Your task to perform on an android device: Search for usb-a to usb-b on walmart, select the first entry, and add it to the cart. Image 0: 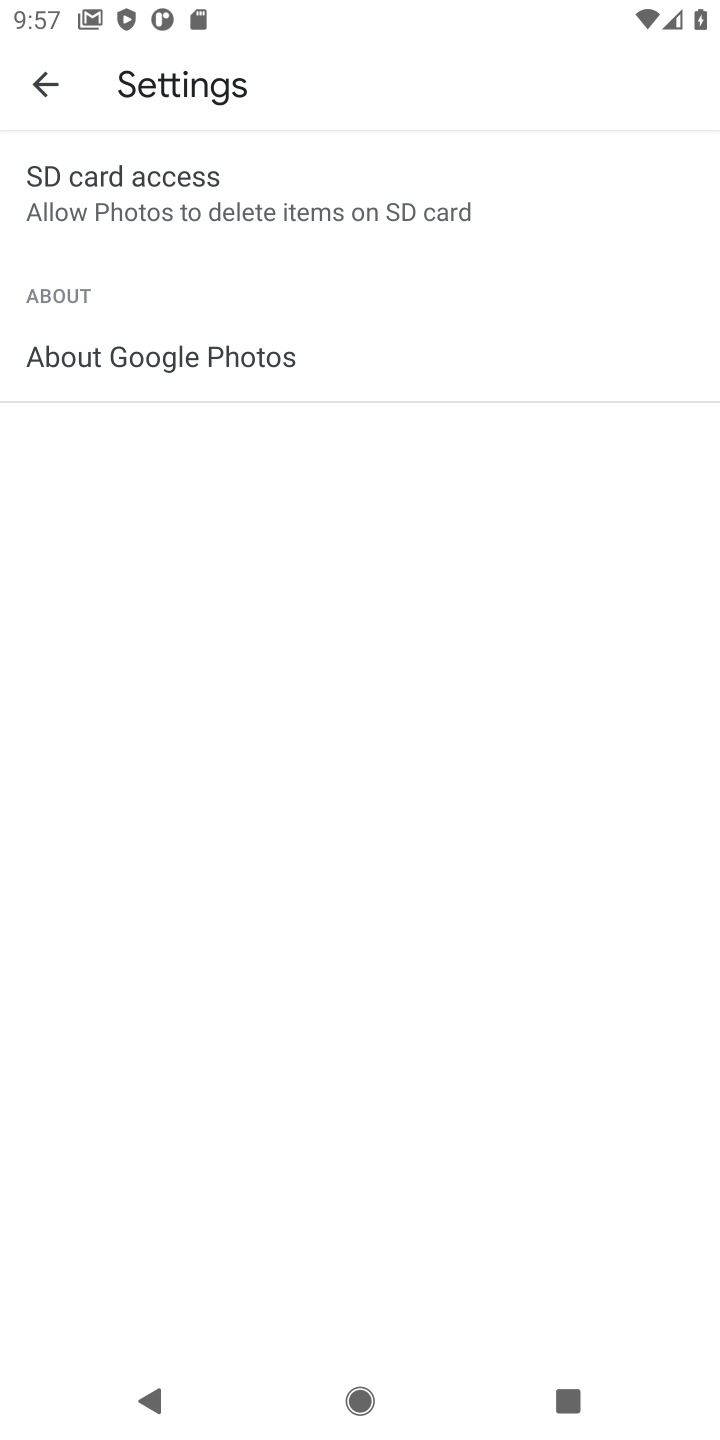
Step 0: press home button
Your task to perform on an android device: Search for usb-a to usb-b on walmart, select the first entry, and add it to the cart. Image 1: 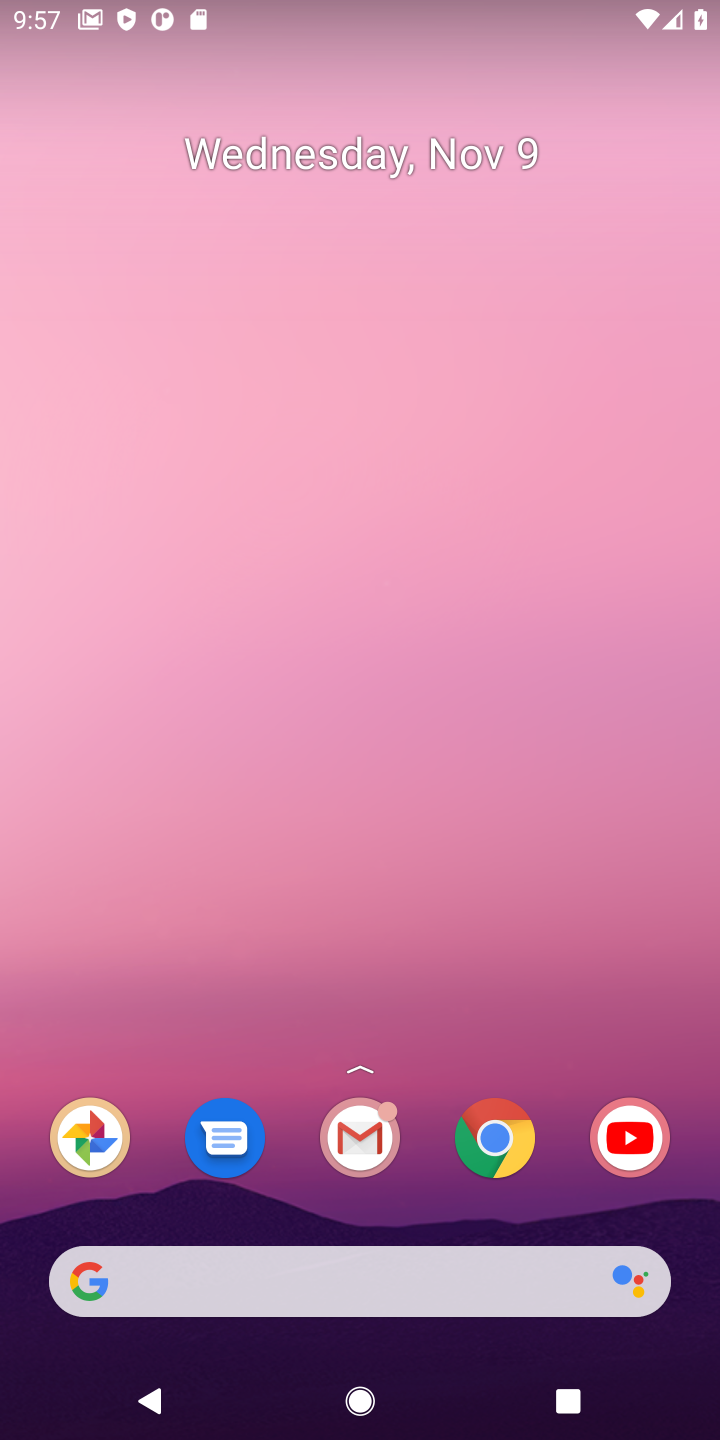
Step 1: drag from (431, 1206) to (489, 95)
Your task to perform on an android device: Search for usb-a to usb-b on walmart, select the first entry, and add it to the cart. Image 2: 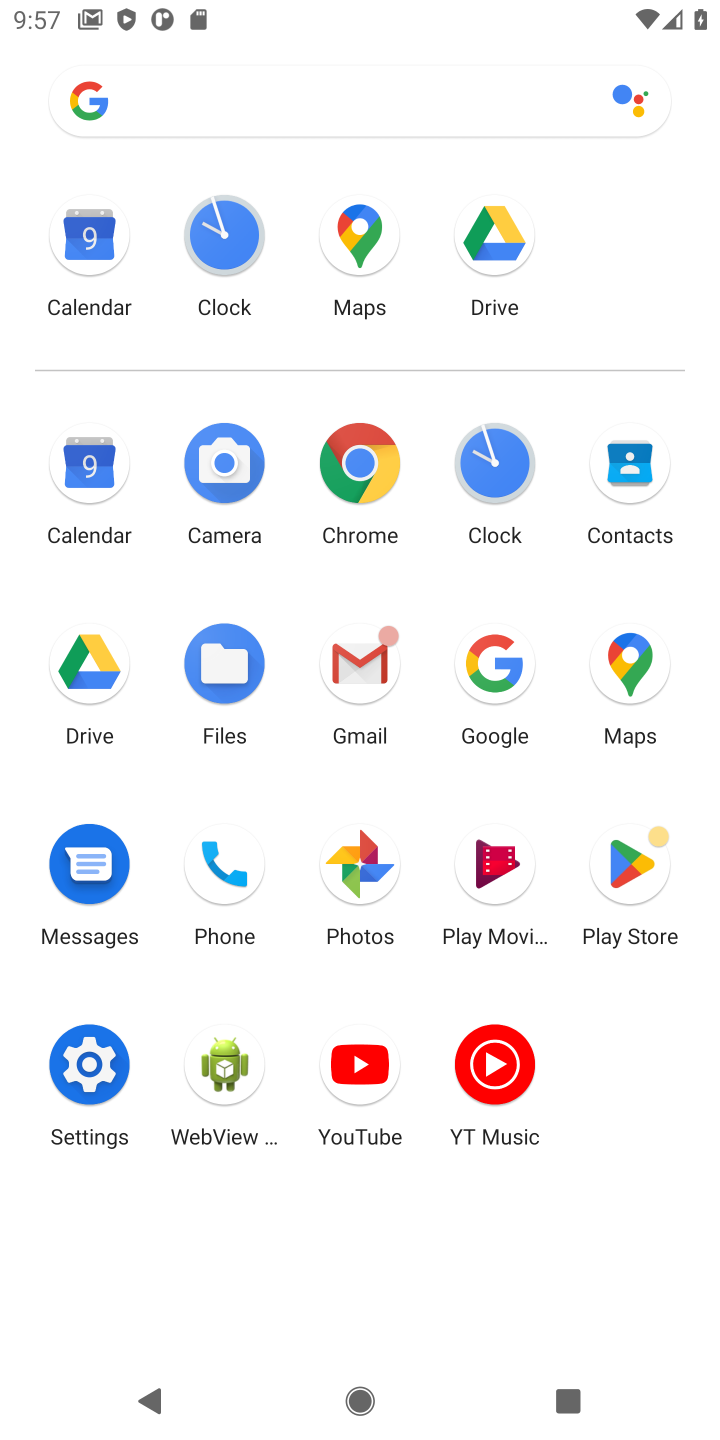
Step 2: click (365, 464)
Your task to perform on an android device: Search for usb-a to usb-b on walmart, select the first entry, and add it to the cart. Image 3: 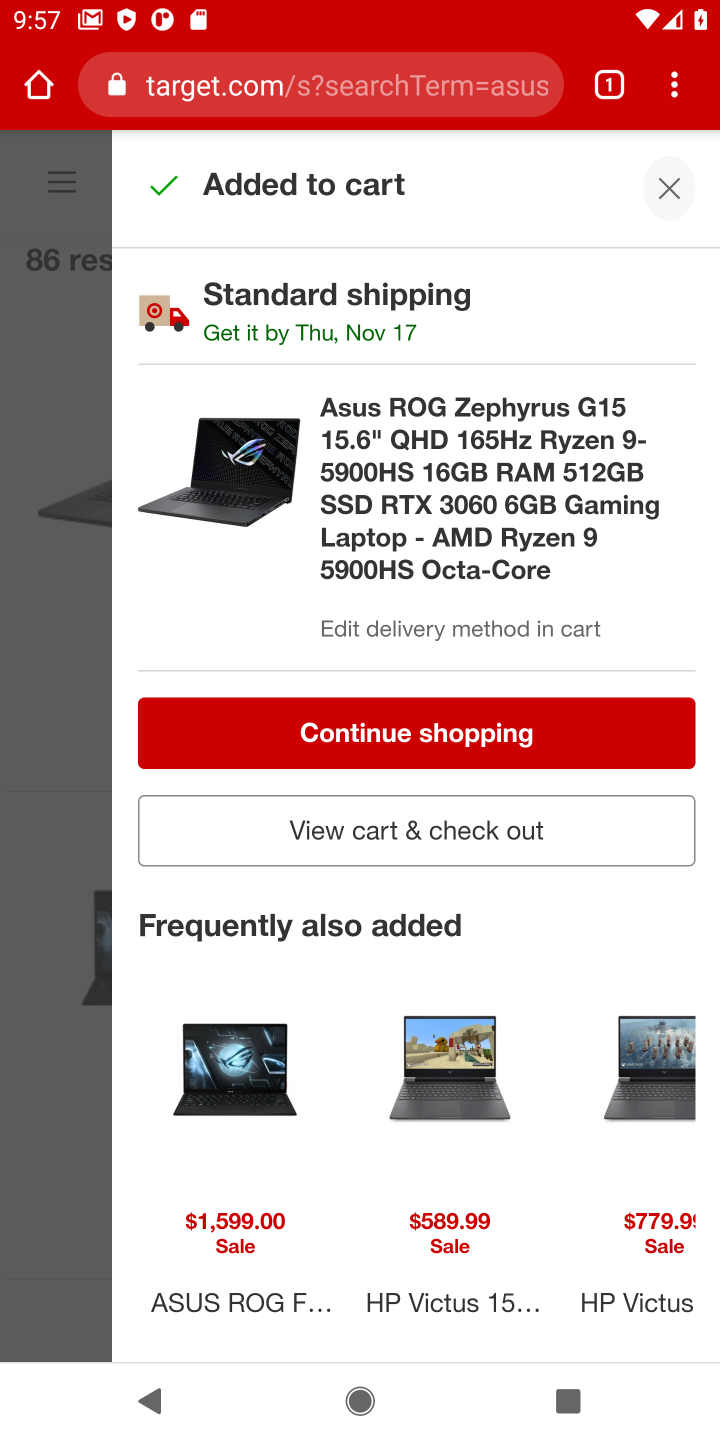
Step 3: click (413, 96)
Your task to perform on an android device: Search for usb-a to usb-b on walmart, select the first entry, and add it to the cart. Image 4: 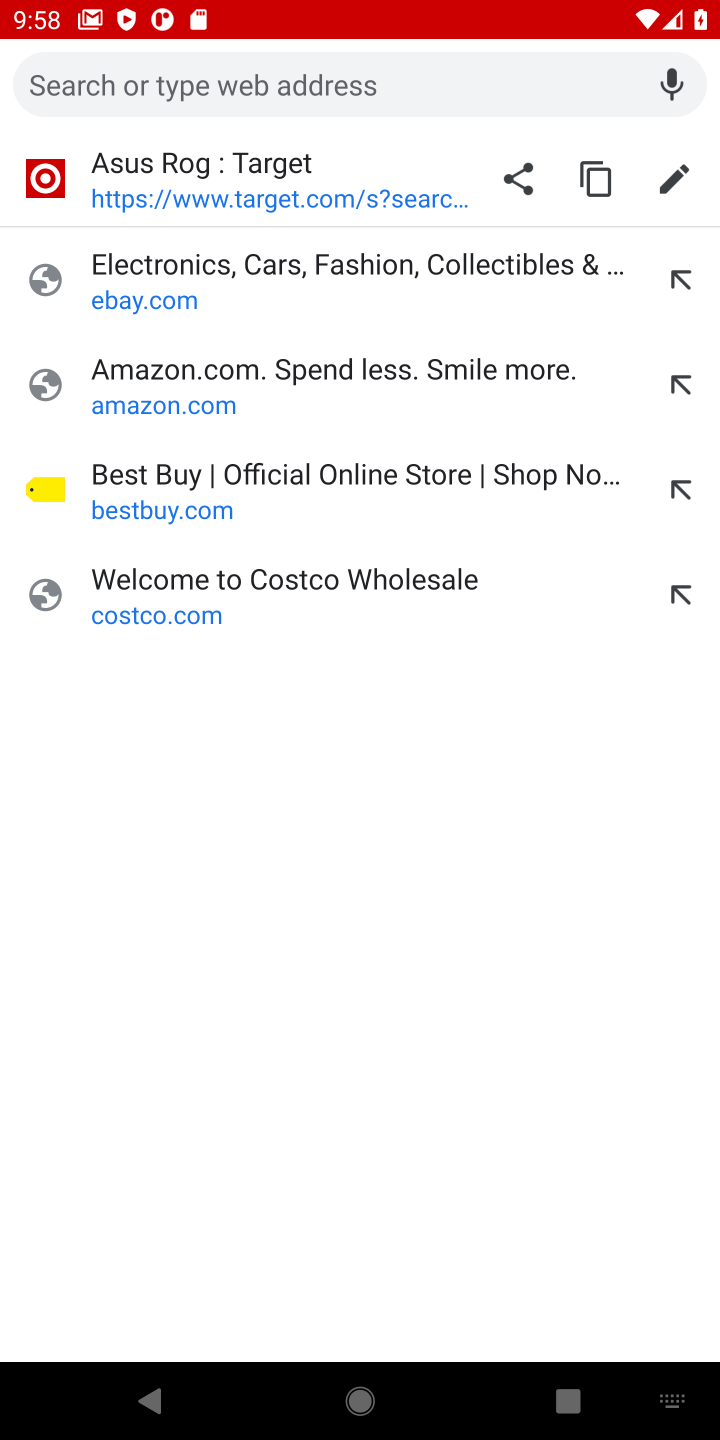
Step 4: type "walmart.com"
Your task to perform on an android device: Search for usb-a to usb-b on walmart, select the first entry, and add it to the cart. Image 5: 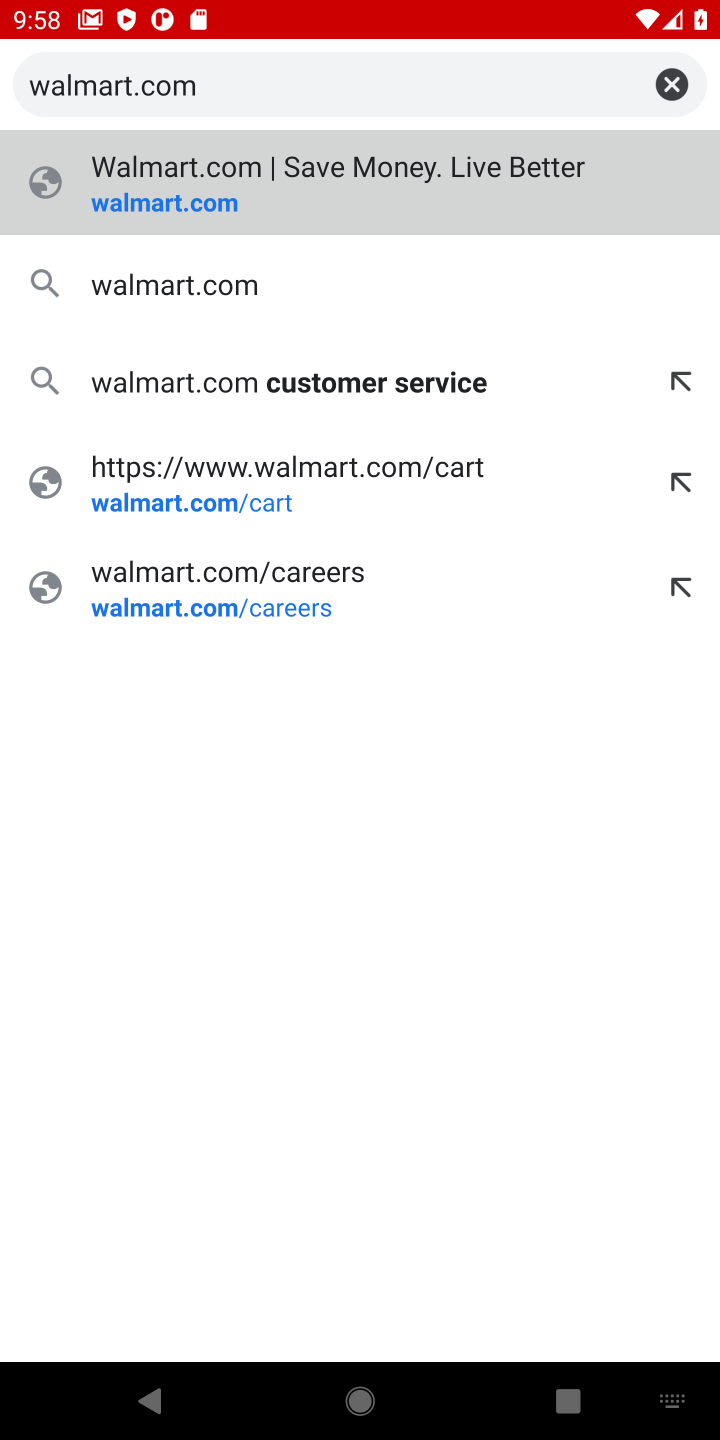
Step 5: press enter
Your task to perform on an android device: Search for usb-a to usb-b on walmart, select the first entry, and add it to the cart. Image 6: 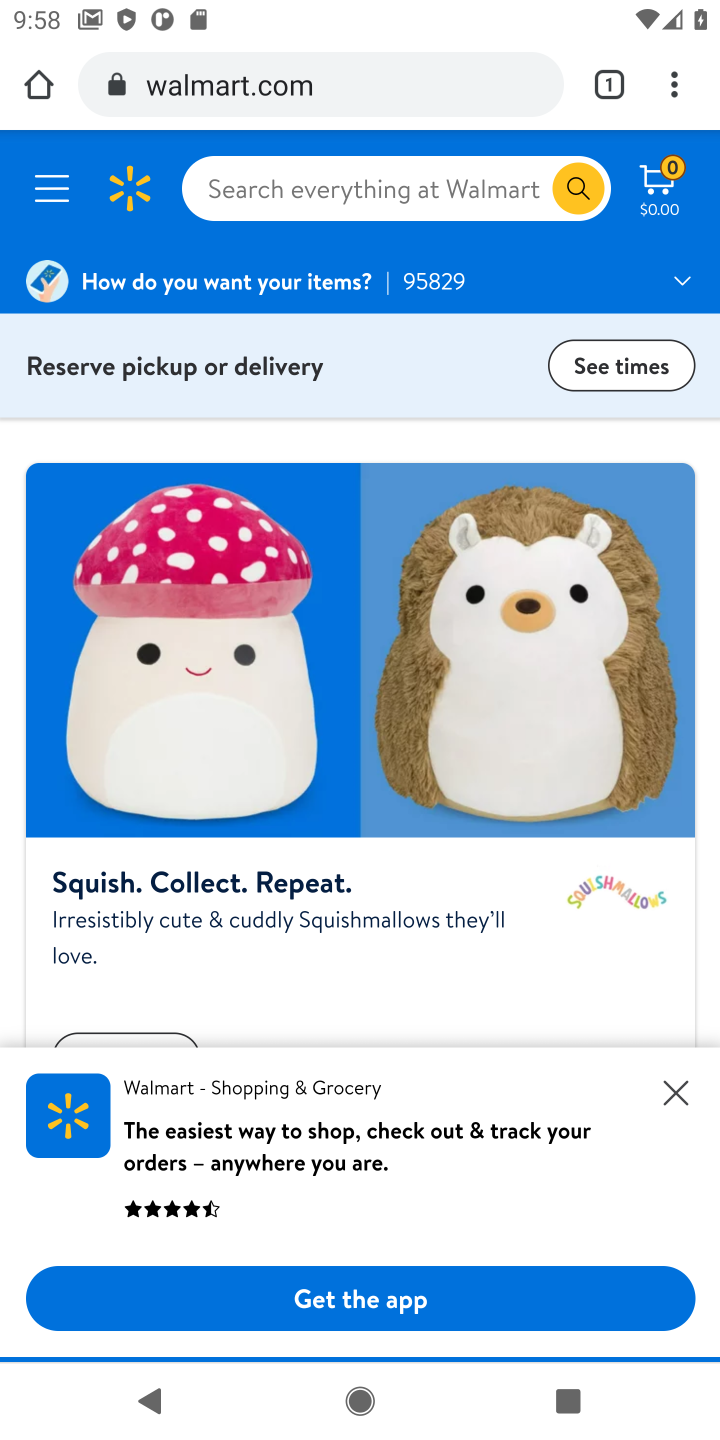
Step 6: click (408, 187)
Your task to perform on an android device: Search for usb-a to usb-b on walmart, select the first entry, and add it to the cart. Image 7: 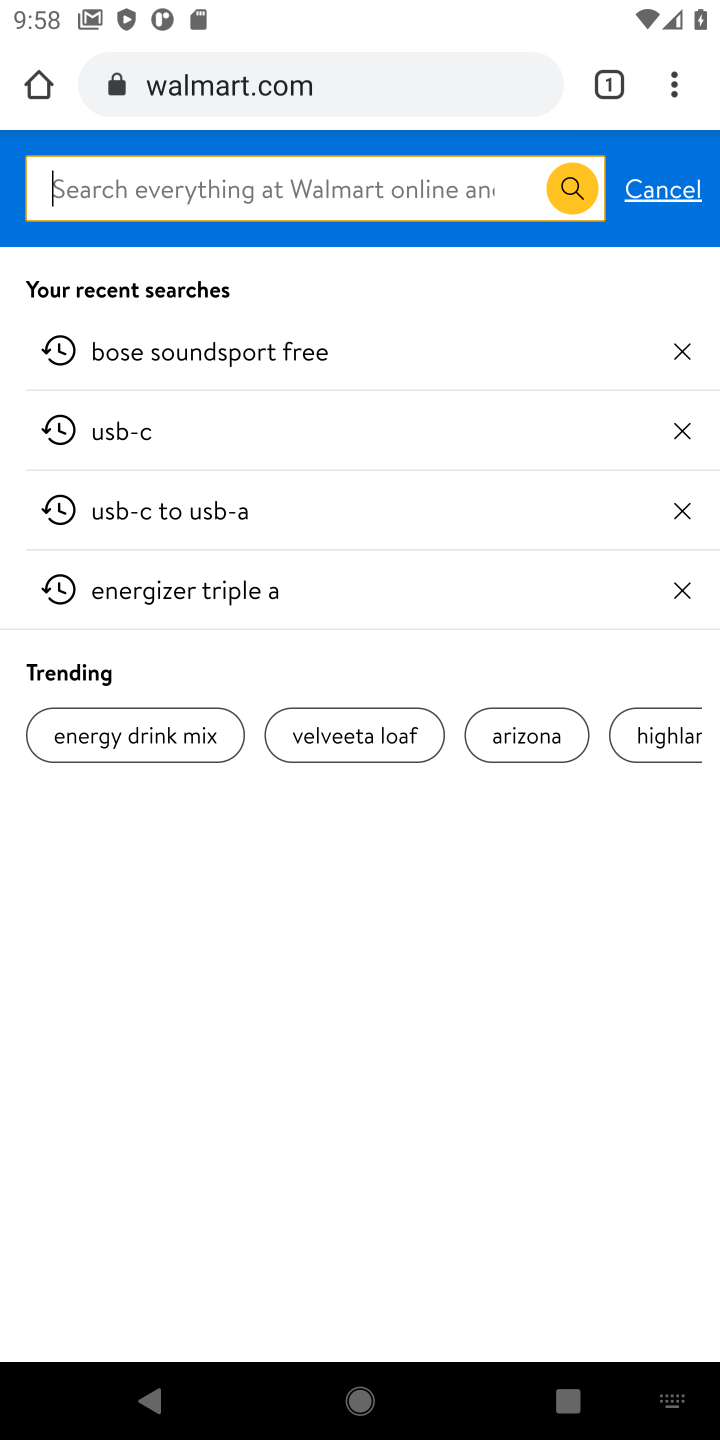
Step 7: type "usb-a to usb-b"
Your task to perform on an android device: Search for usb-a to usb-b on walmart, select the first entry, and add it to the cart. Image 8: 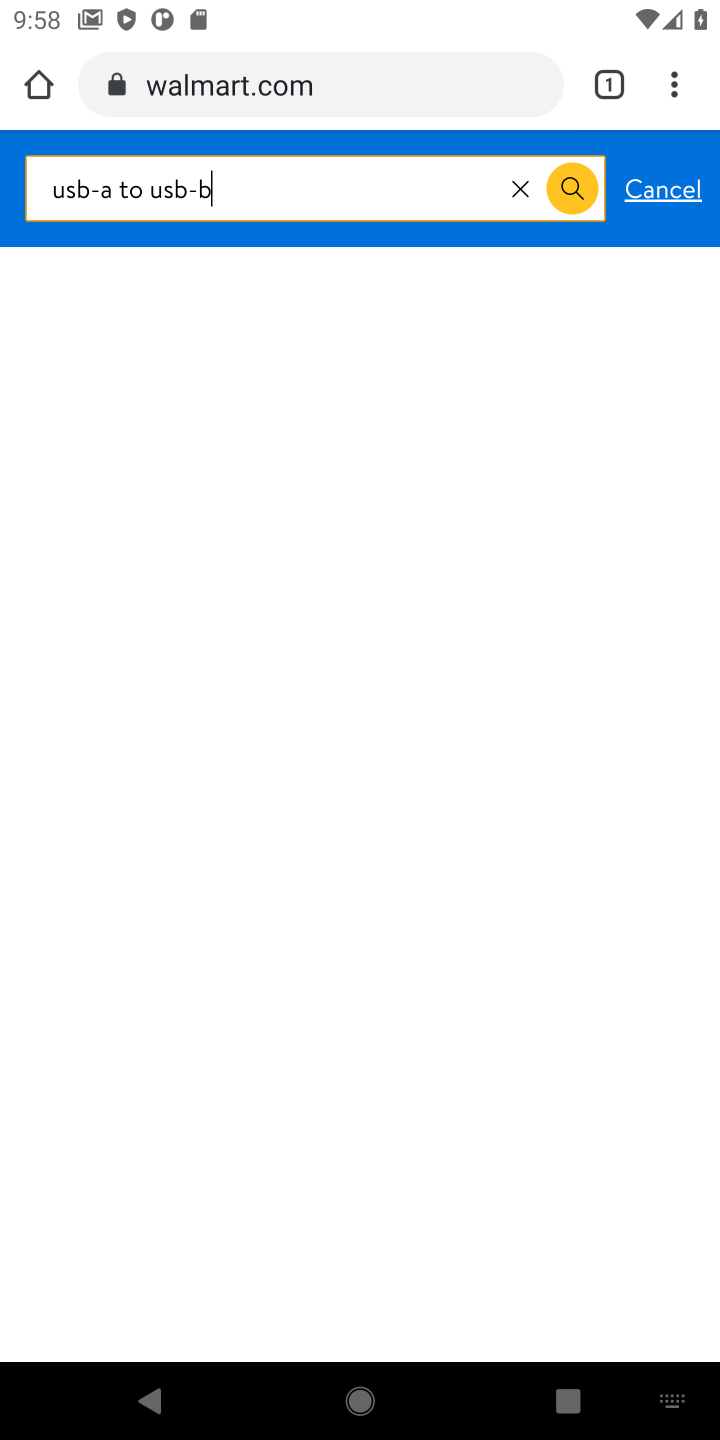
Step 8: press enter
Your task to perform on an android device: Search for usb-a to usb-b on walmart, select the first entry, and add it to the cart. Image 9: 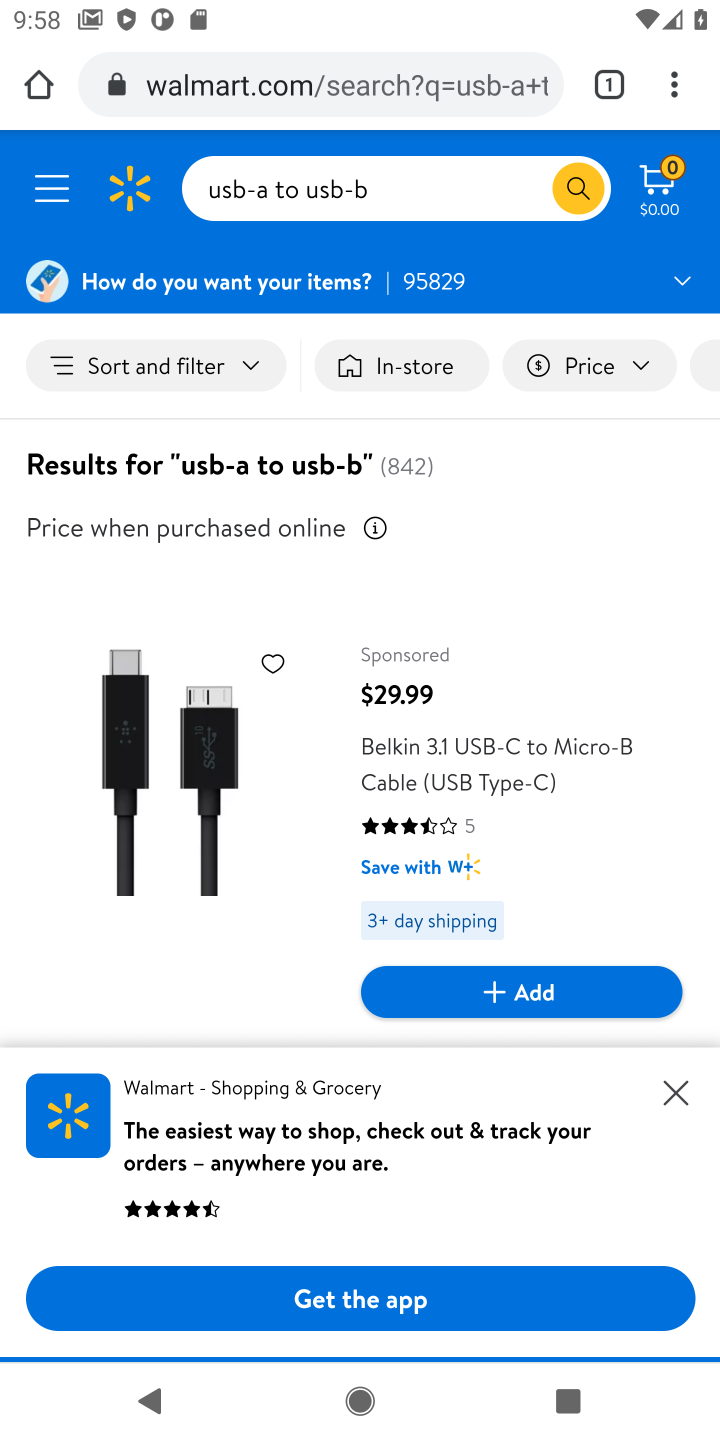
Step 9: drag from (367, 865) to (398, 56)
Your task to perform on an android device: Search for usb-a to usb-b on walmart, select the first entry, and add it to the cart. Image 10: 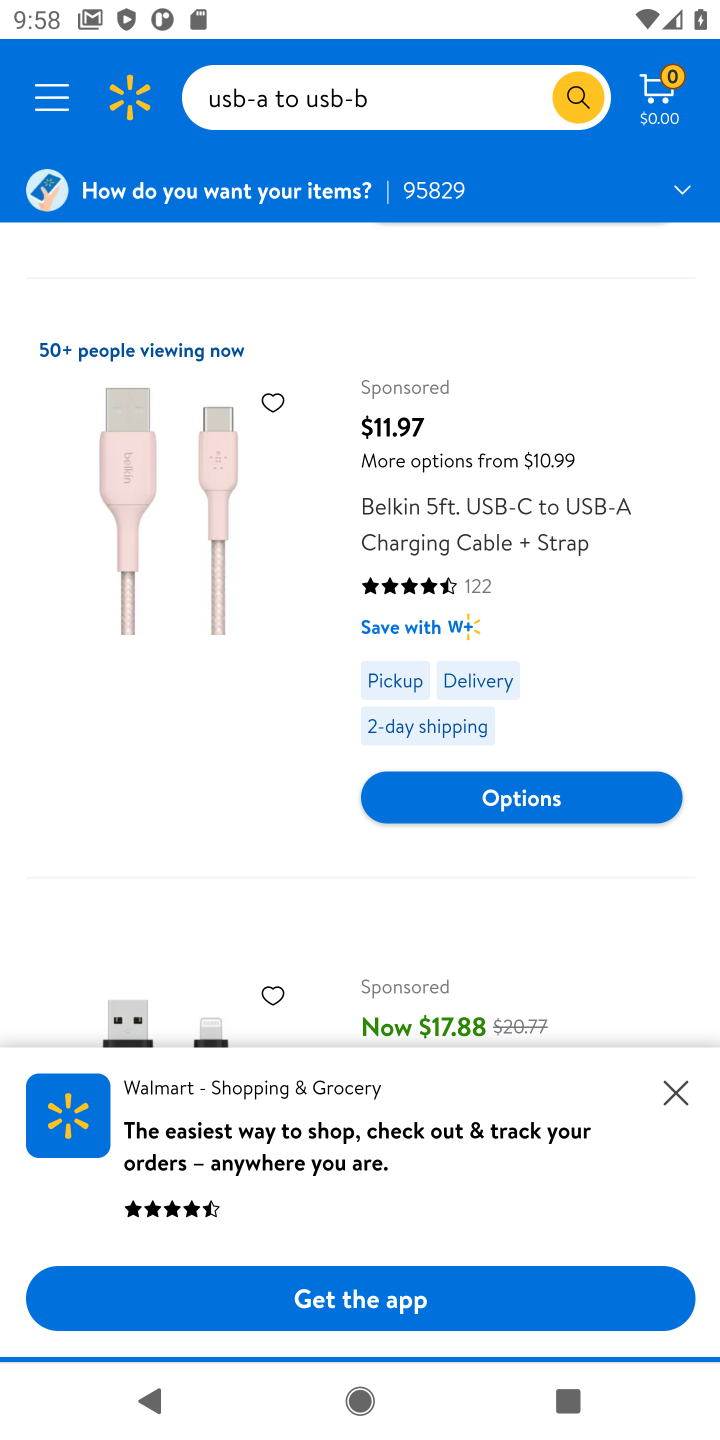
Step 10: drag from (446, 934) to (384, 0)
Your task to perform on an android device: Search for usb-a to usb-b on walmart, select the first entry, and add it to the cart. Image 11: 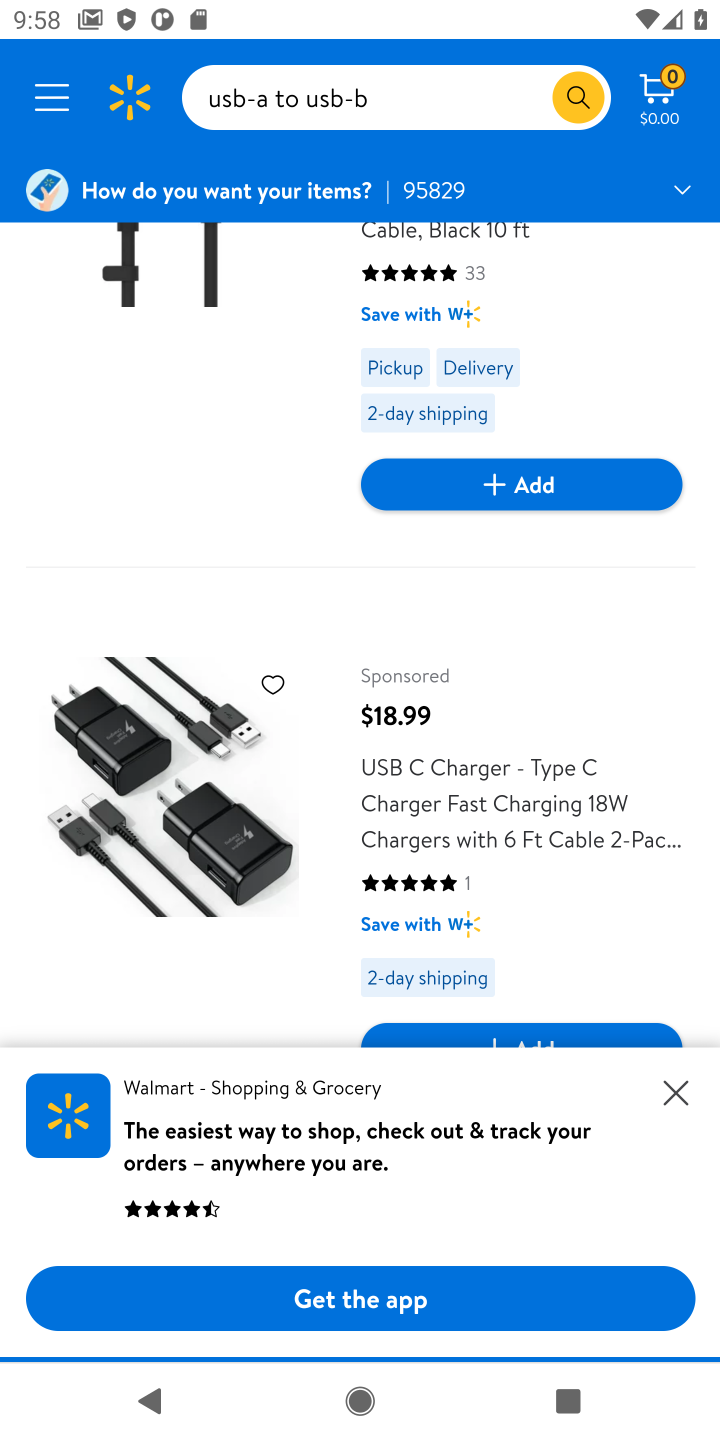
Step 11: drag from (536, 815) to (506, 62)
Your task to perform on an android device: Search for usb-a to usb-b on walmart, select the first entry, and add it to the cart. Image 12: 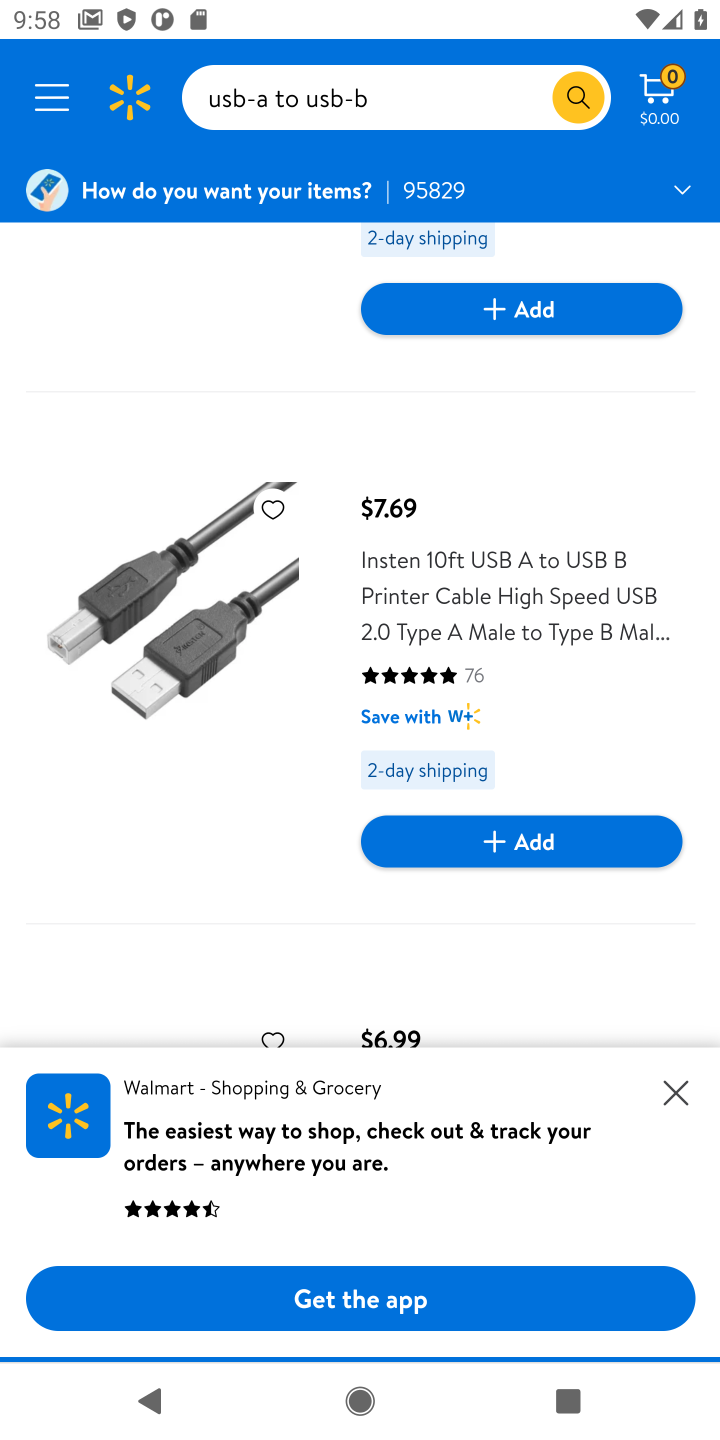
Step 12: drag from (499, 973) to (449, 1017)
Your task to perform on an android device: Search for usb-a to usb-b on walmart, select the first entry, and add it to the cart. Image 13: 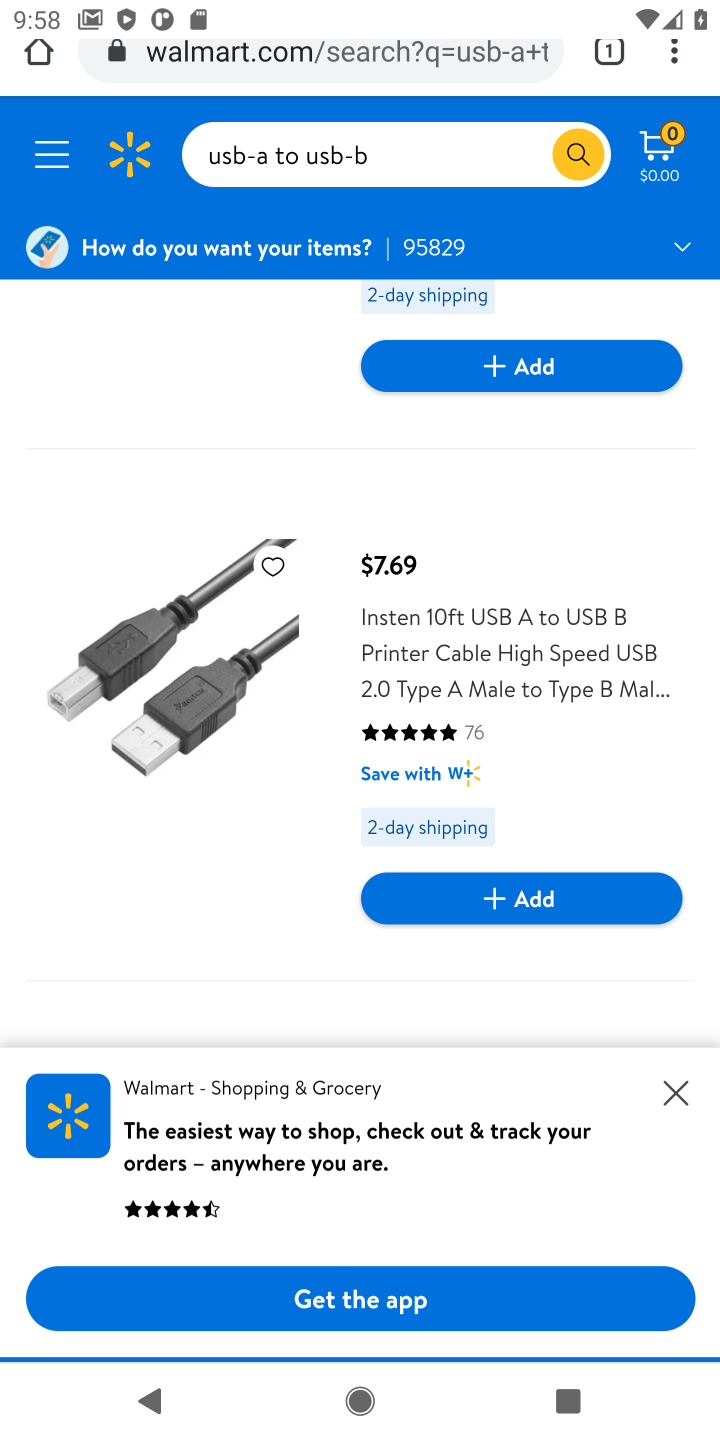
Step 13: drag from (434, 585) to (441, 991)
Your task to perform on an android device: Search for usb-a to usb-b on walmart, select the first entry, and add it to the cart. Image 14: 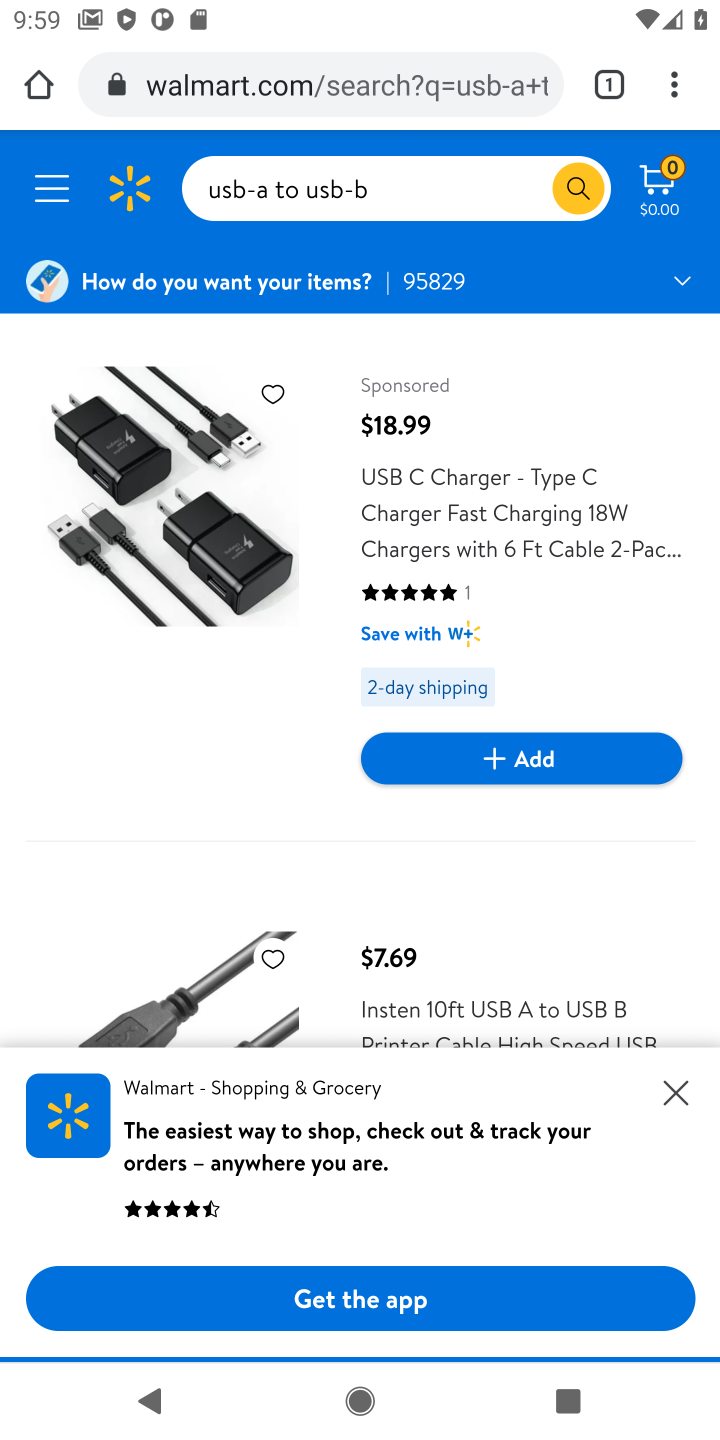
Step 14: drag from (483, 558) to (496, 289)
Your task to perform on an android device: Search for usb-a to usb-b on walmart, select the first entry, and add it to the cart. Image 15: 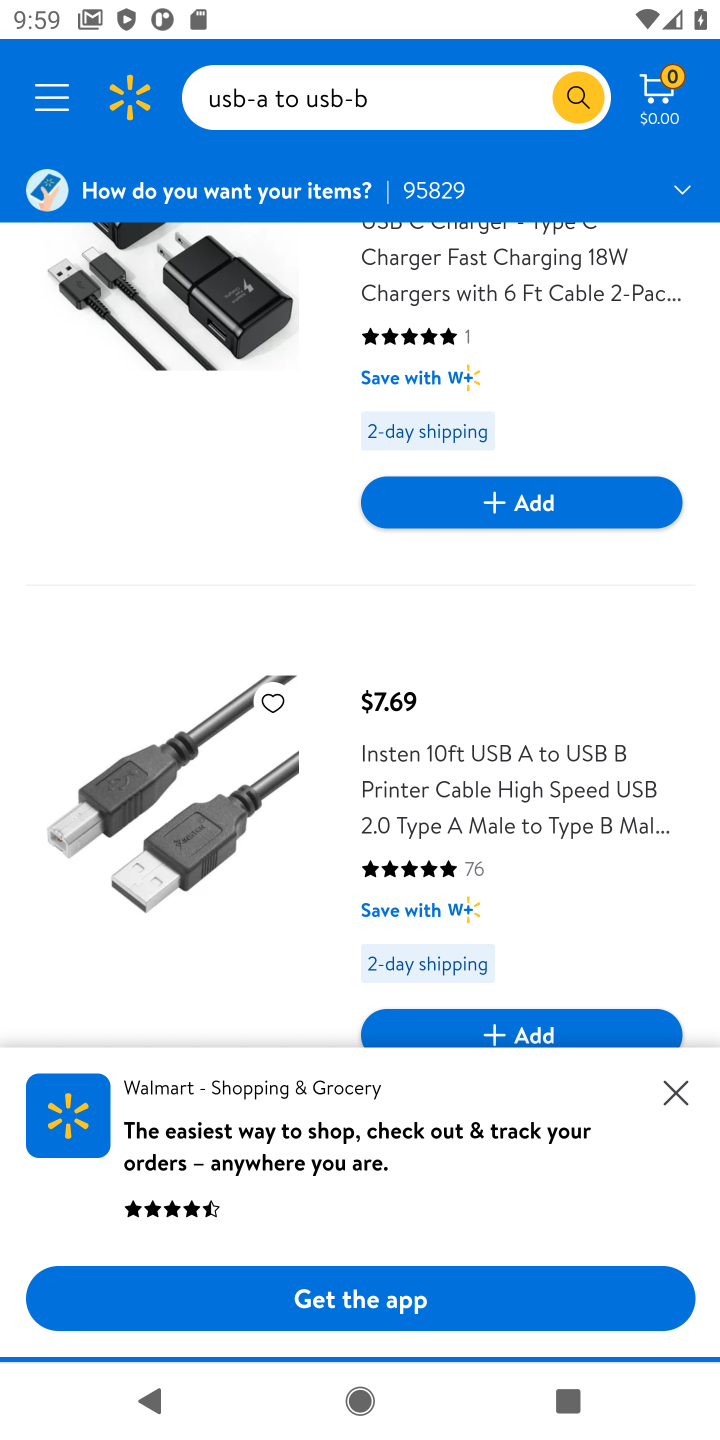
Step 15: drag from (525, 664) to (541, 483)
Your task to perform on an android device: Search for usb-a to usb-b on walmart, select the first entry, and add it to the cart. Image 16: 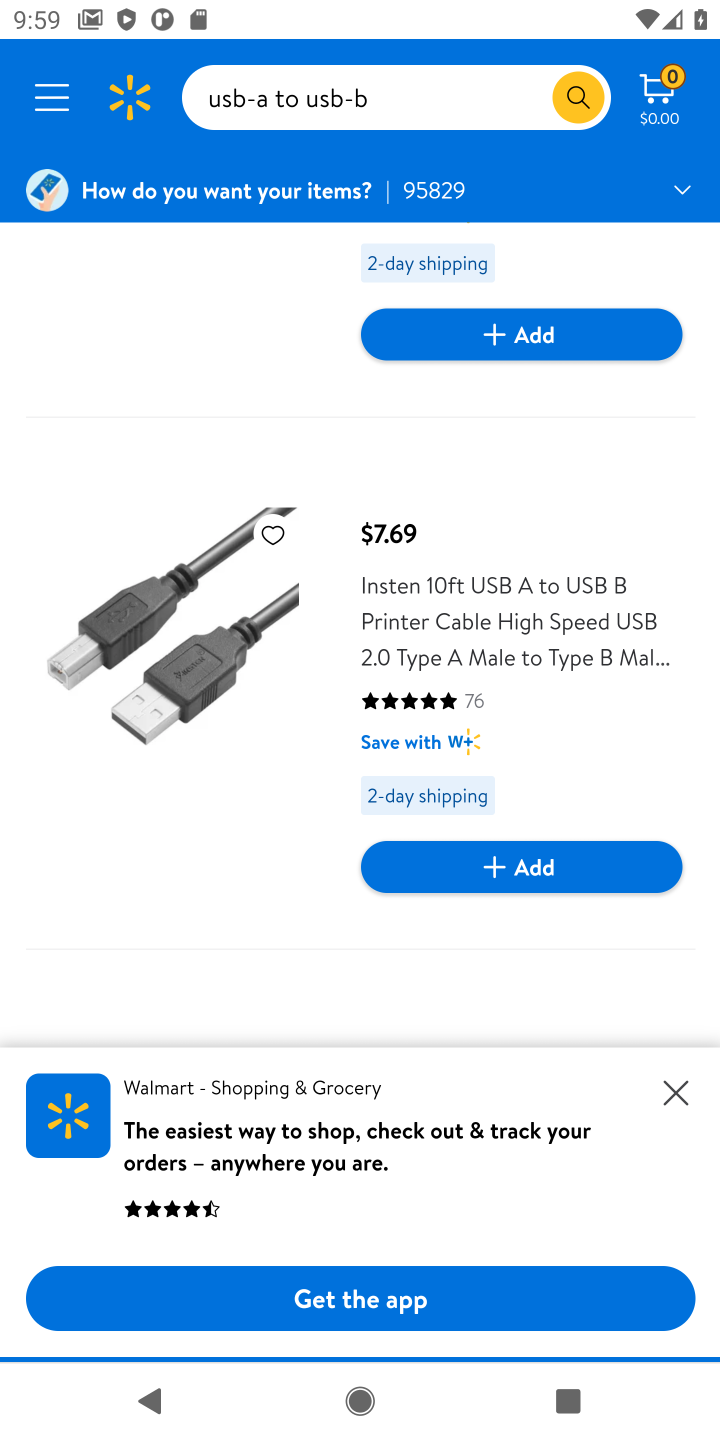
Step 16: click (538, 866)
Your task to perform on an android device: Search for usb-a to usb-b on walmart, select the first entry, and add it to the cart. Image 17: 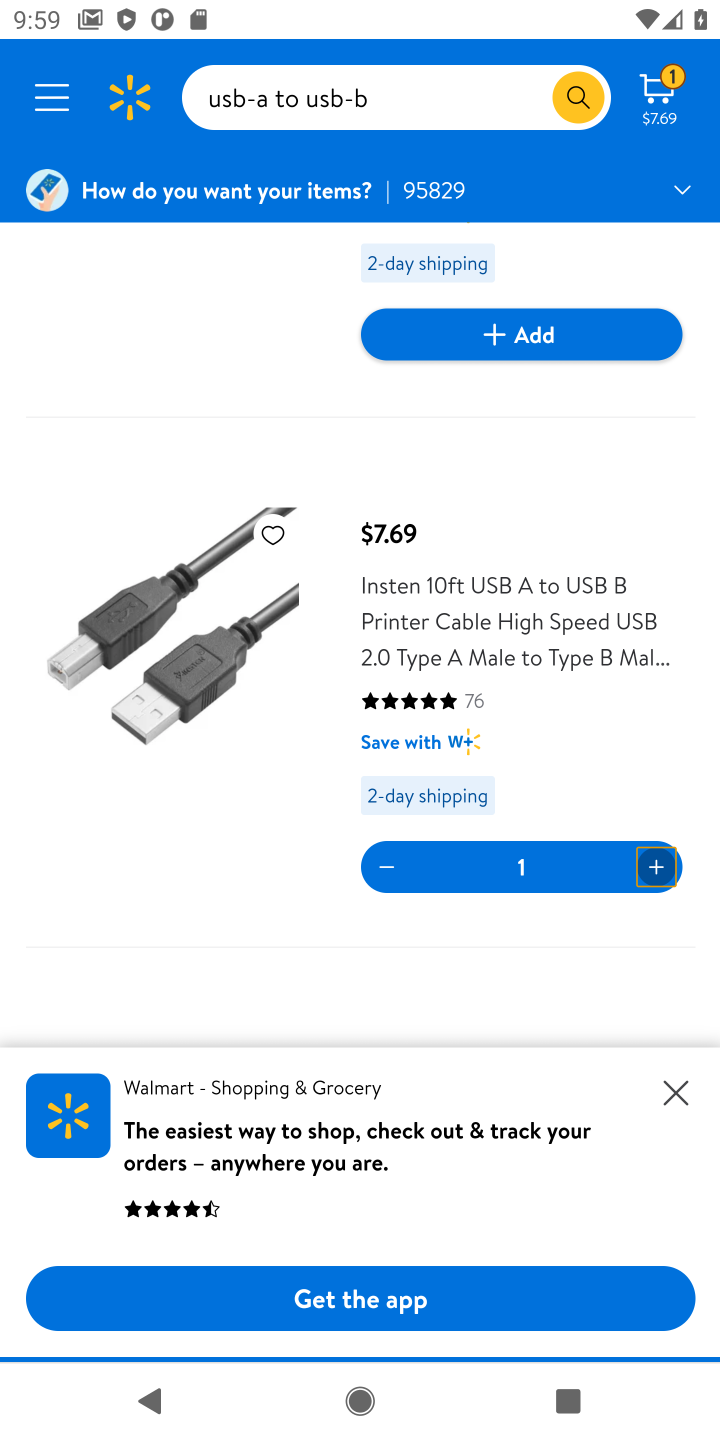
Step 17: task complete